Your task to perform on an android device: empty trash in google photos Image 0: 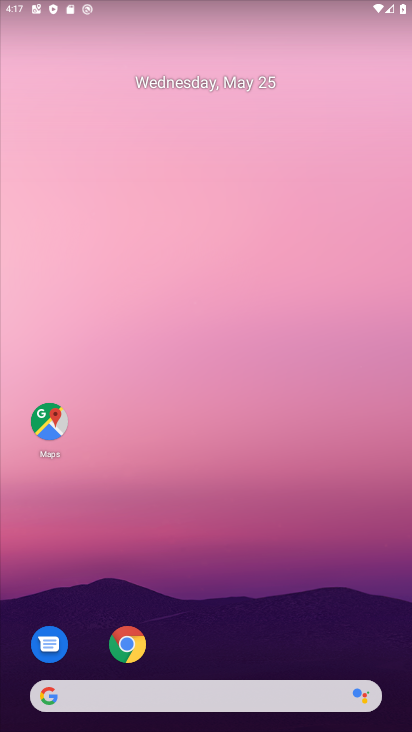
Step 0: drag from (204, 674) to (268, 71)
Your task to perform on an android device: empty trash in google photos Image 1: 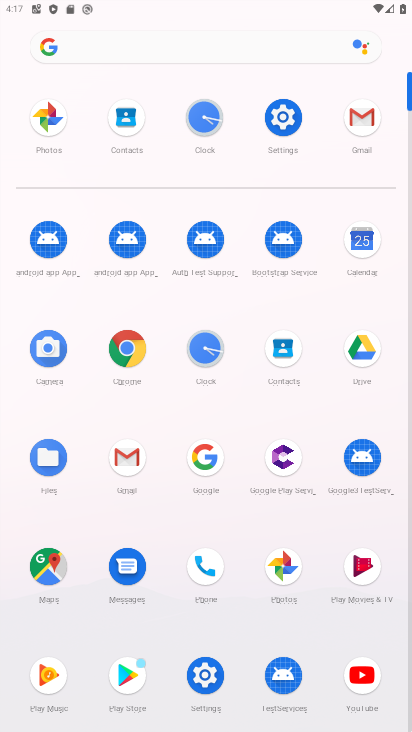
Step 1: click (48, 123)
Your task to perform on an android device: empty trash in google photos Image 2: 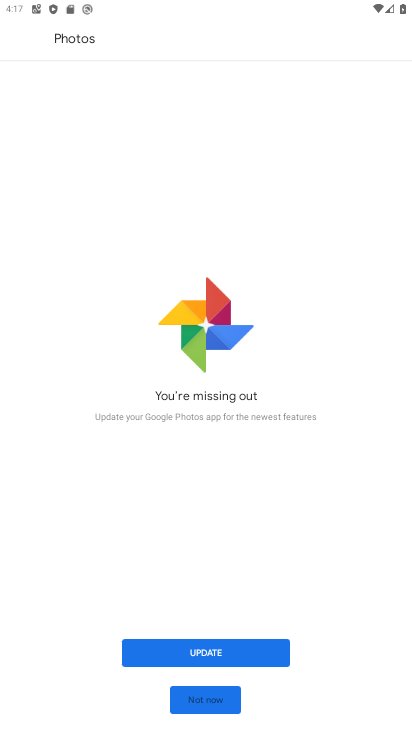
Step 2: click (199, 702)
Your task to perform on an android device: empty trash in google photos Image 3: 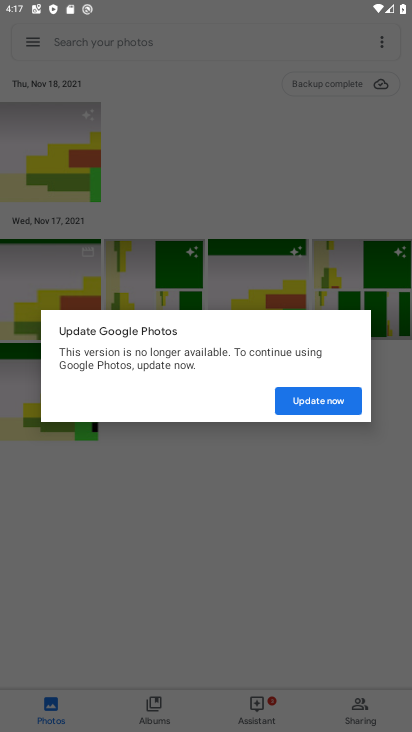
Step 3: click (315, 398)
Your task to perform on an android device: empty trash in google photos Image 4: 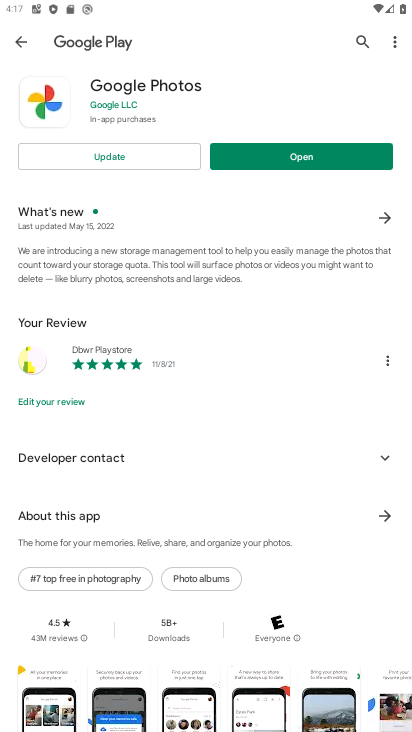
Step 4: click (282, 156)
Your task to perform on an android device: empty trash in google photos Image 5: 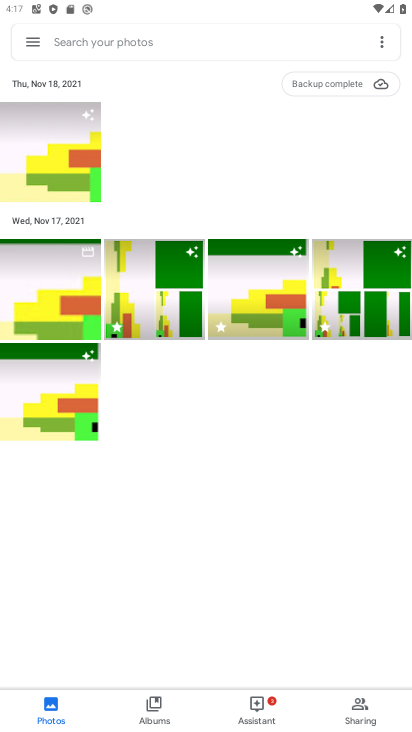
Step 5: click (28, 42)
Your task to perform on an android device: empty trash in google photos Image 6: 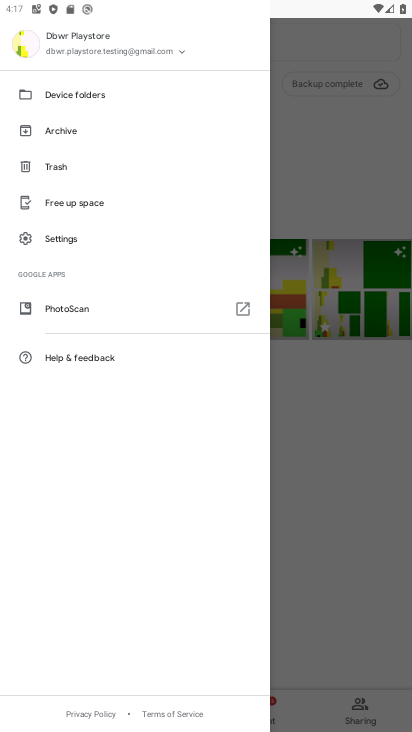
Step 6: click (40, 172)
Your task to perform on an android device: empty trash in google photos Image 7: 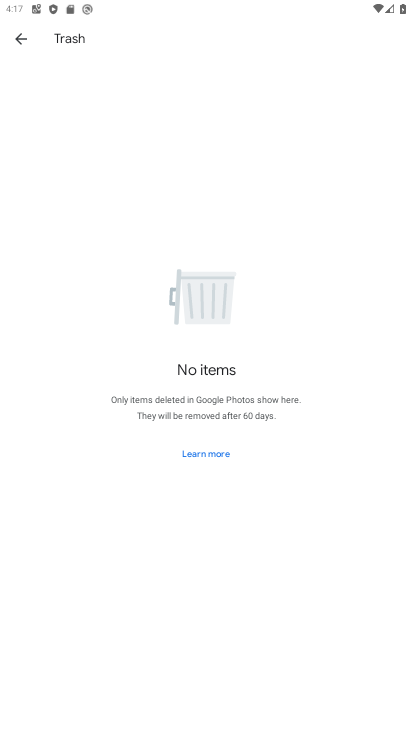
Step 7: task complete